Your task to perform on an android device: Set the phone to "Do not disturb". Image 0: 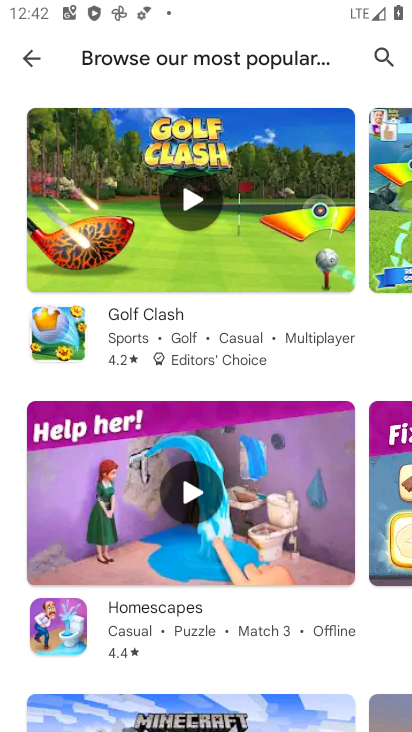
Step 0: press home button
Your task to perform on an android device: Set the phone to "Do not disturb". Image 1: 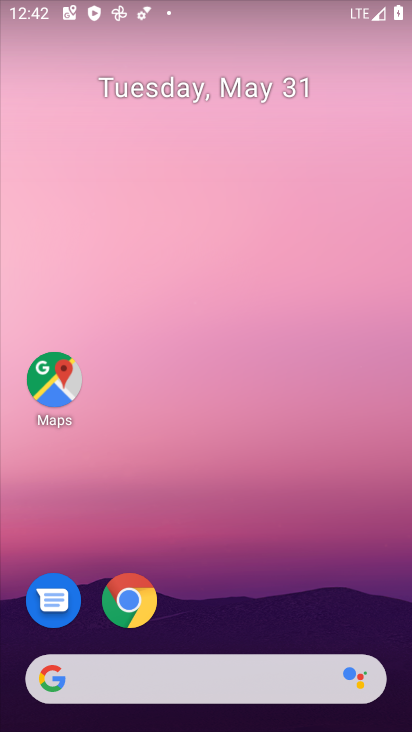
Step 1: drag from (232, 722) to (234, 83)
Your task to perform on an android device: Set the phone to "Do not disturb". Image 2: 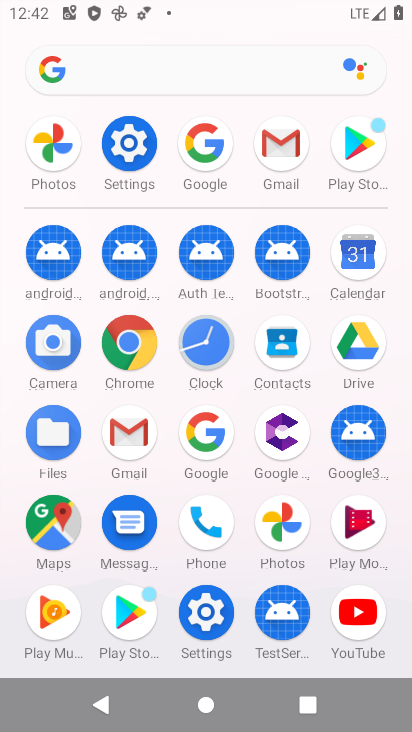
Step 2: click (130, 150)
Your task to perform on an android device: Set the phone to "Do not disturb". Image 3: 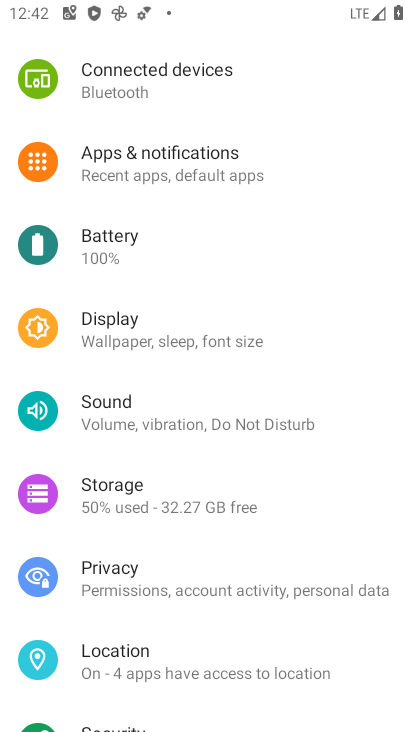
Step 3: click (208, 416)
Your task to perform on an android device: Set the phone to "Do not disturb". Image 4: 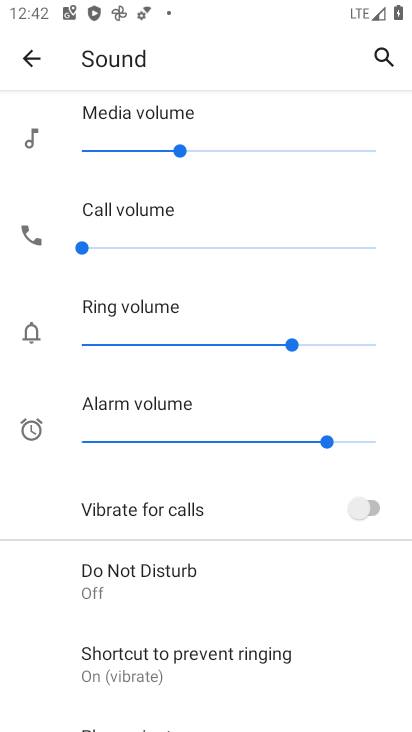
Step 4: click (164, 569)
Your task to perform on an android device: Set the phone to "Do not disturb". Image 5: 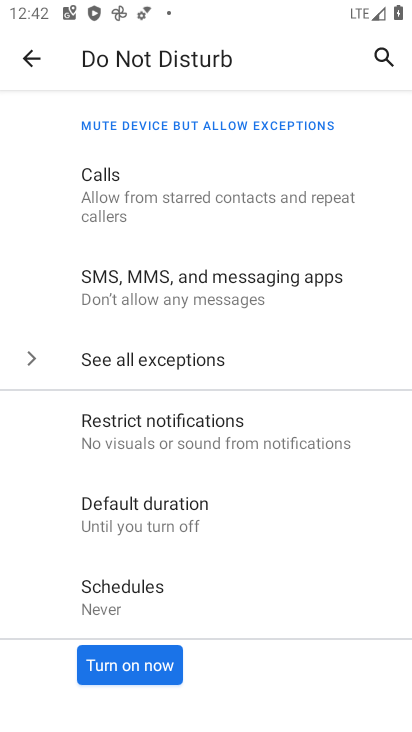
Step 5: click (130, 667)
Your task to perform on an android device: Set the phone to "Do not disturb". Image 6: 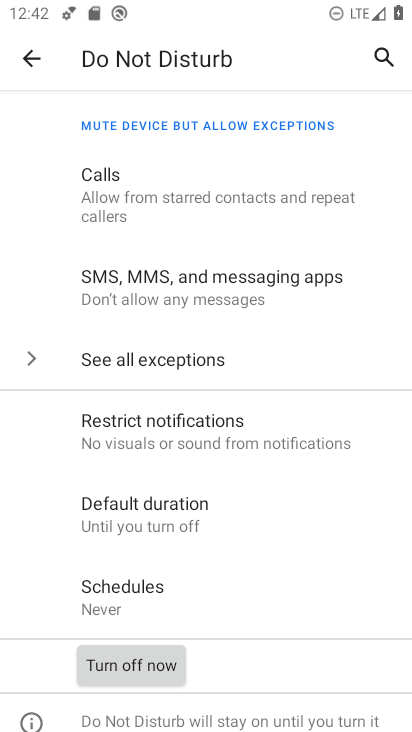
Step 6: task complete